Your task to perform on an android device: What's the news this morning? Image 0: 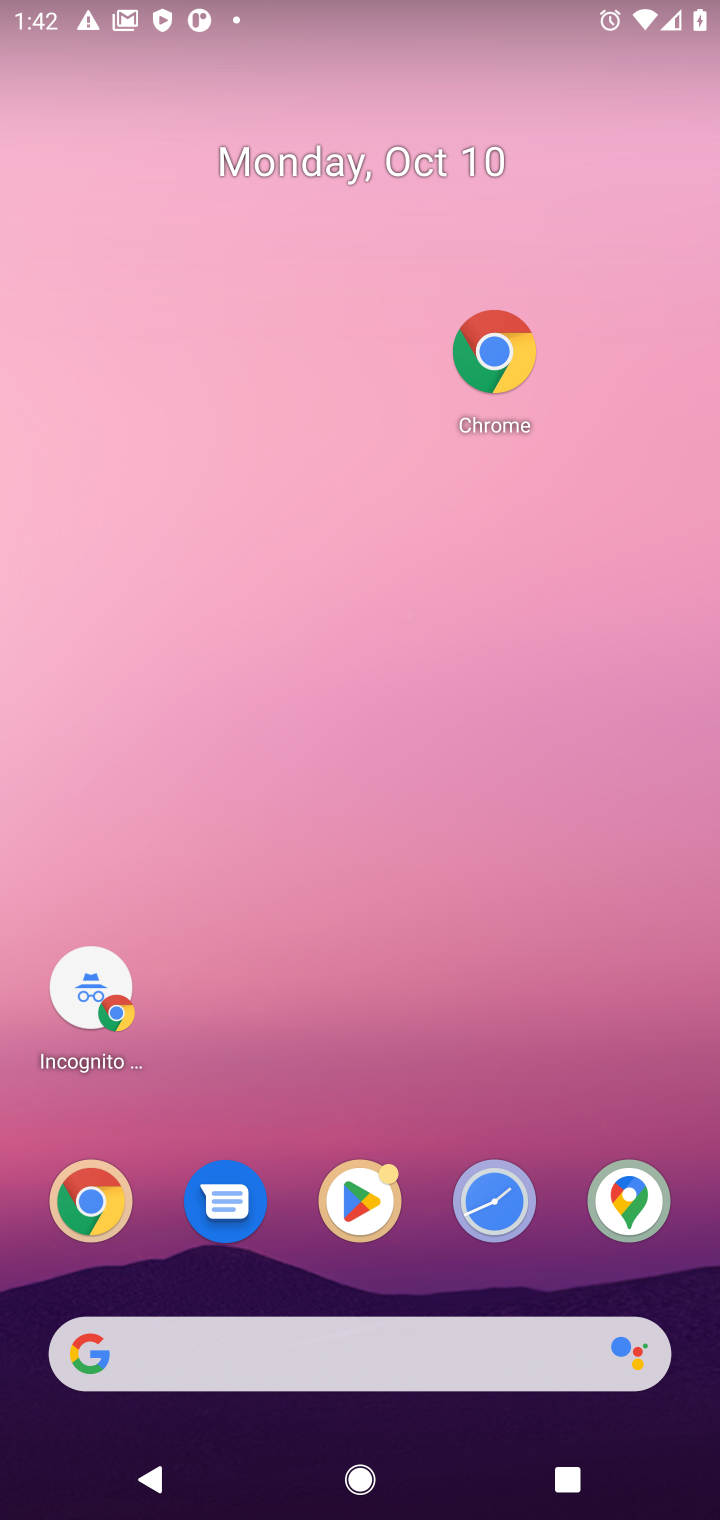
Step 0: click (181, 1351)
Your task to perform on an android device: What's the news this morning? Image 1: 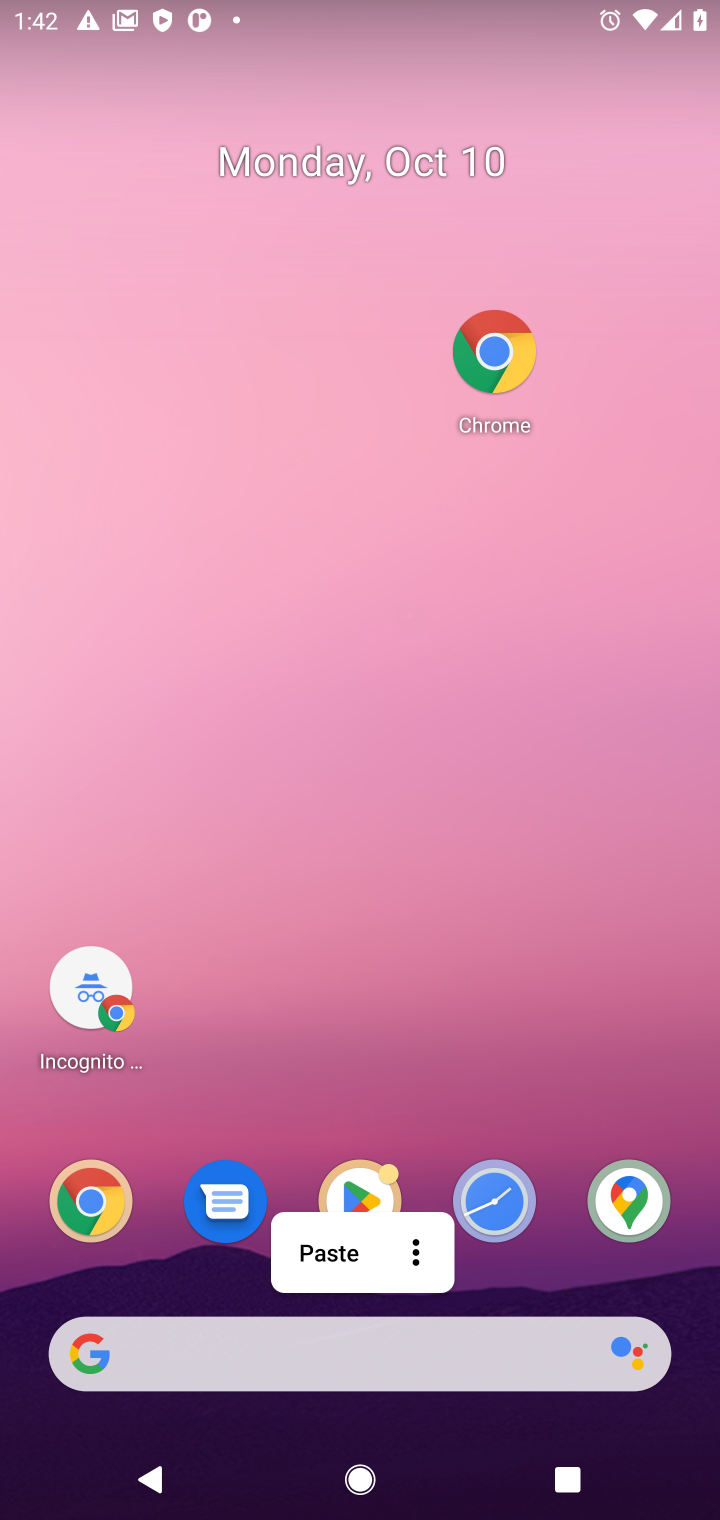
Step 1: click (181, 1351)
Your task to perform on an android device: What's the news this morning? Image 2: 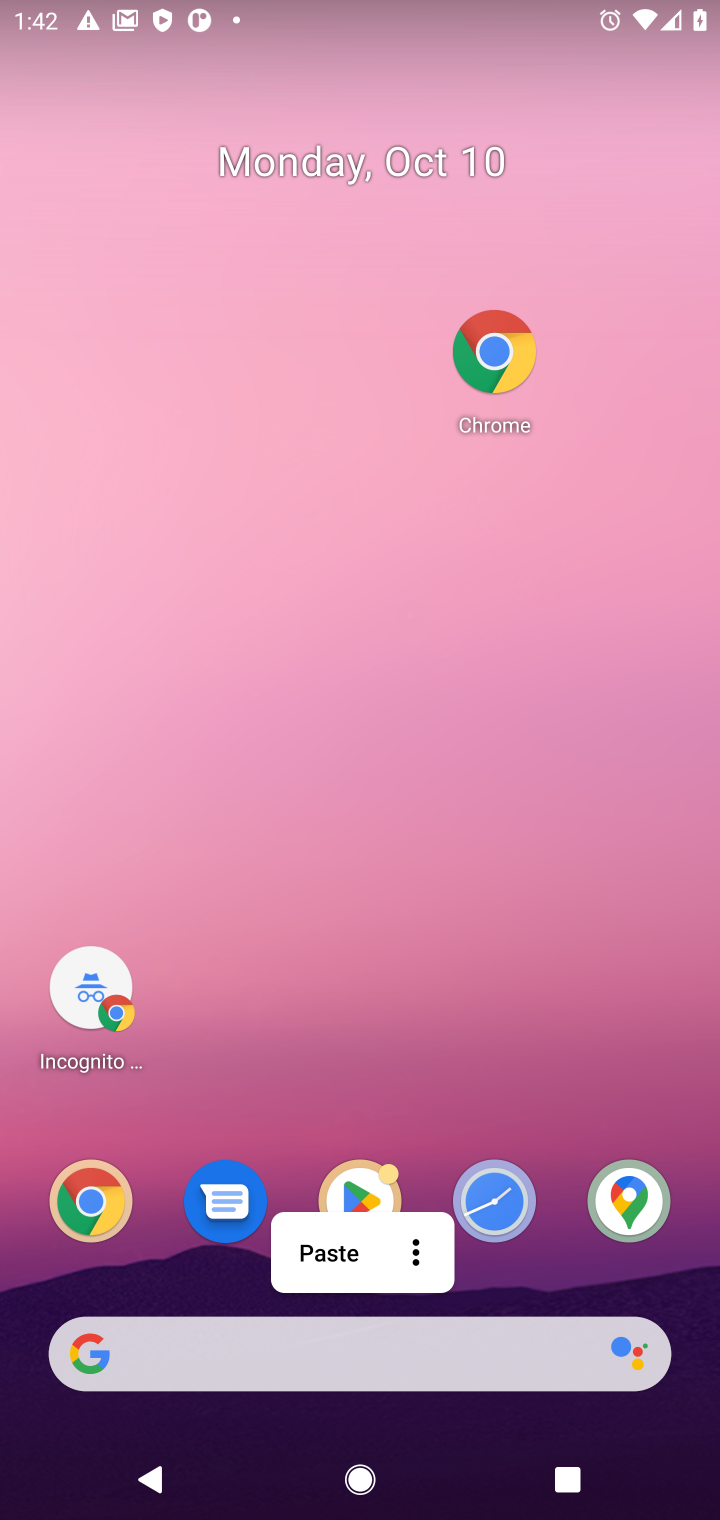
Step 2: click (272, 1357)
Your task to perform on an android device: What's the news this morning? Image 3: 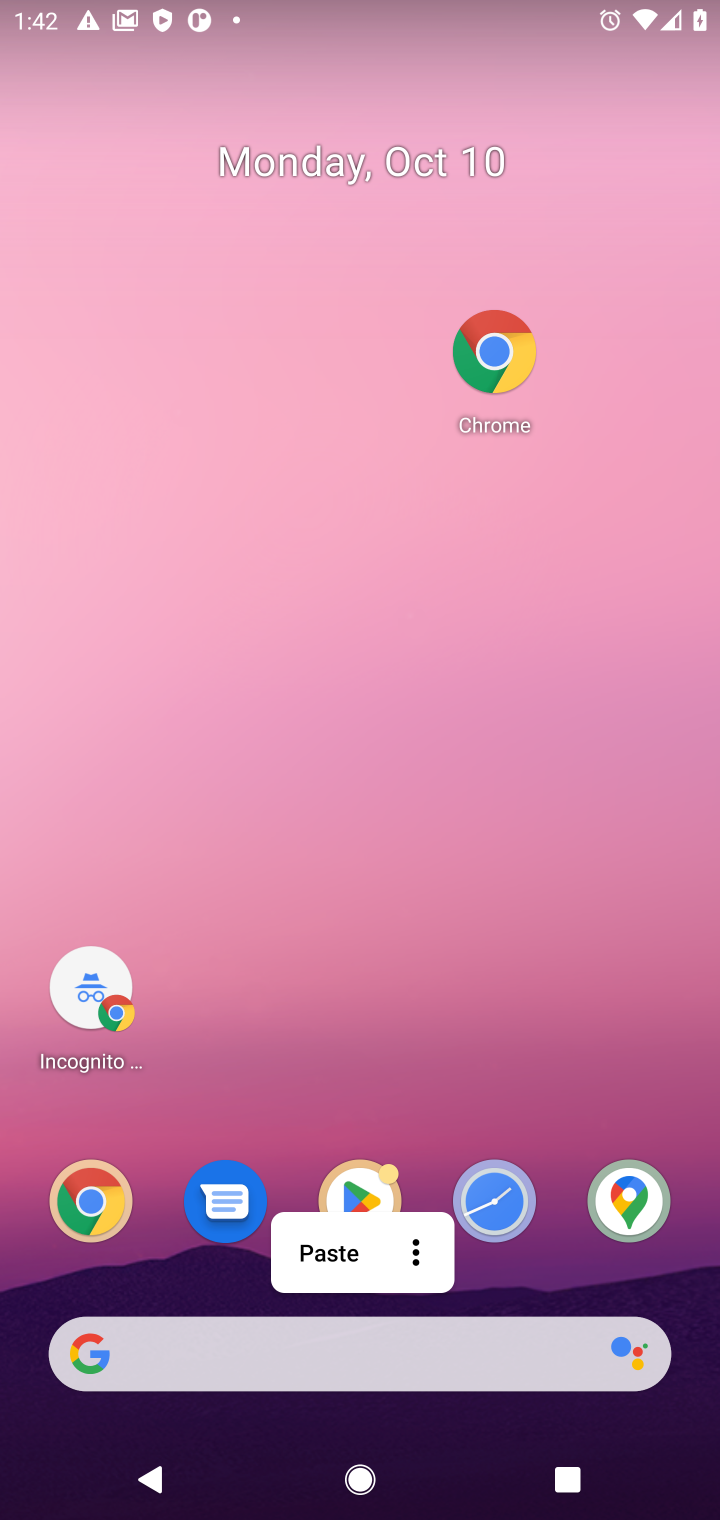
Step 3: drag from (429, 1132) to (470, 92)
Your task to perform on an android device: What's the news this morning? Image 4: 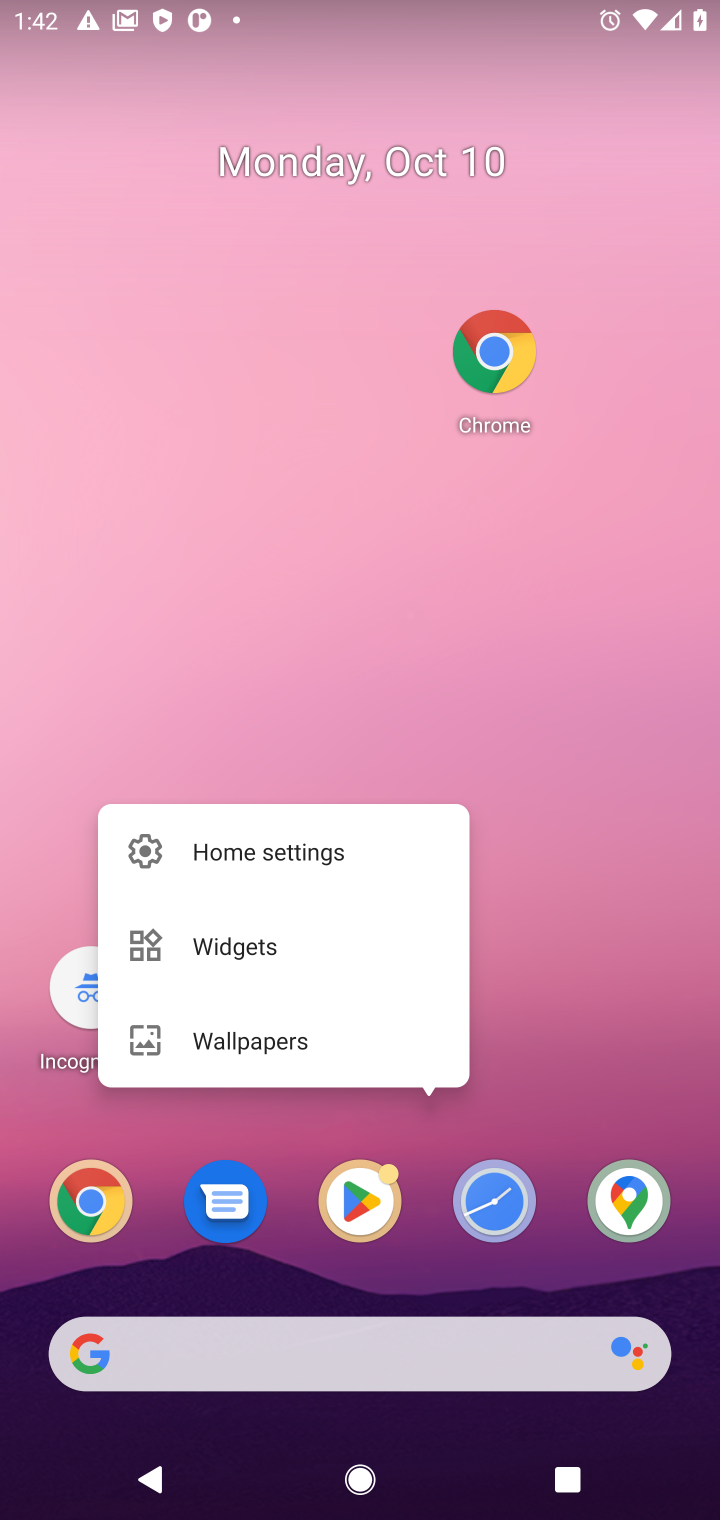
Step 4: drag from (571, 1078) to (667, 1)
Your task to perform on an android device: What's the news this morning? Image 5: 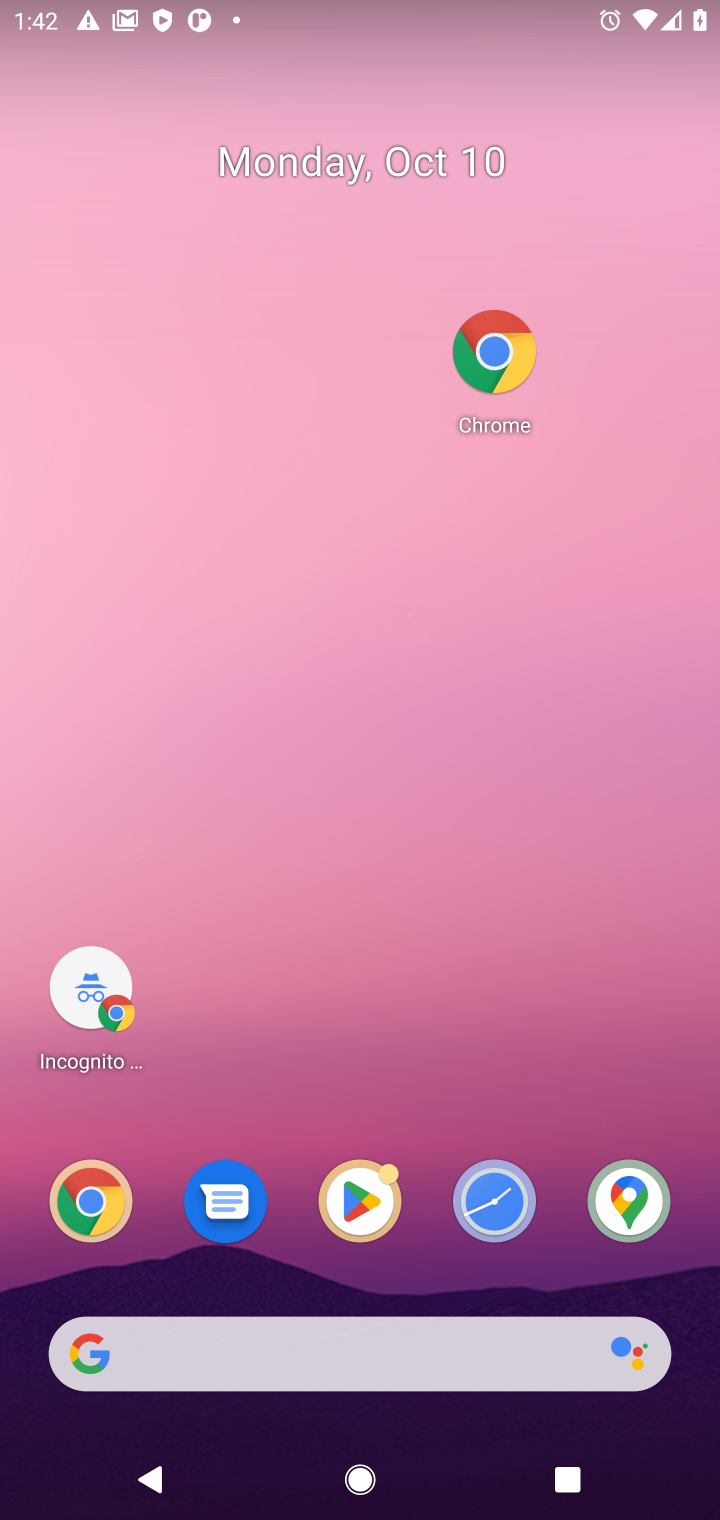
Step 5: drag from (560, 1120) to (560, 127)
Your task to perform on an android device: What's the news this morning? Image 6: 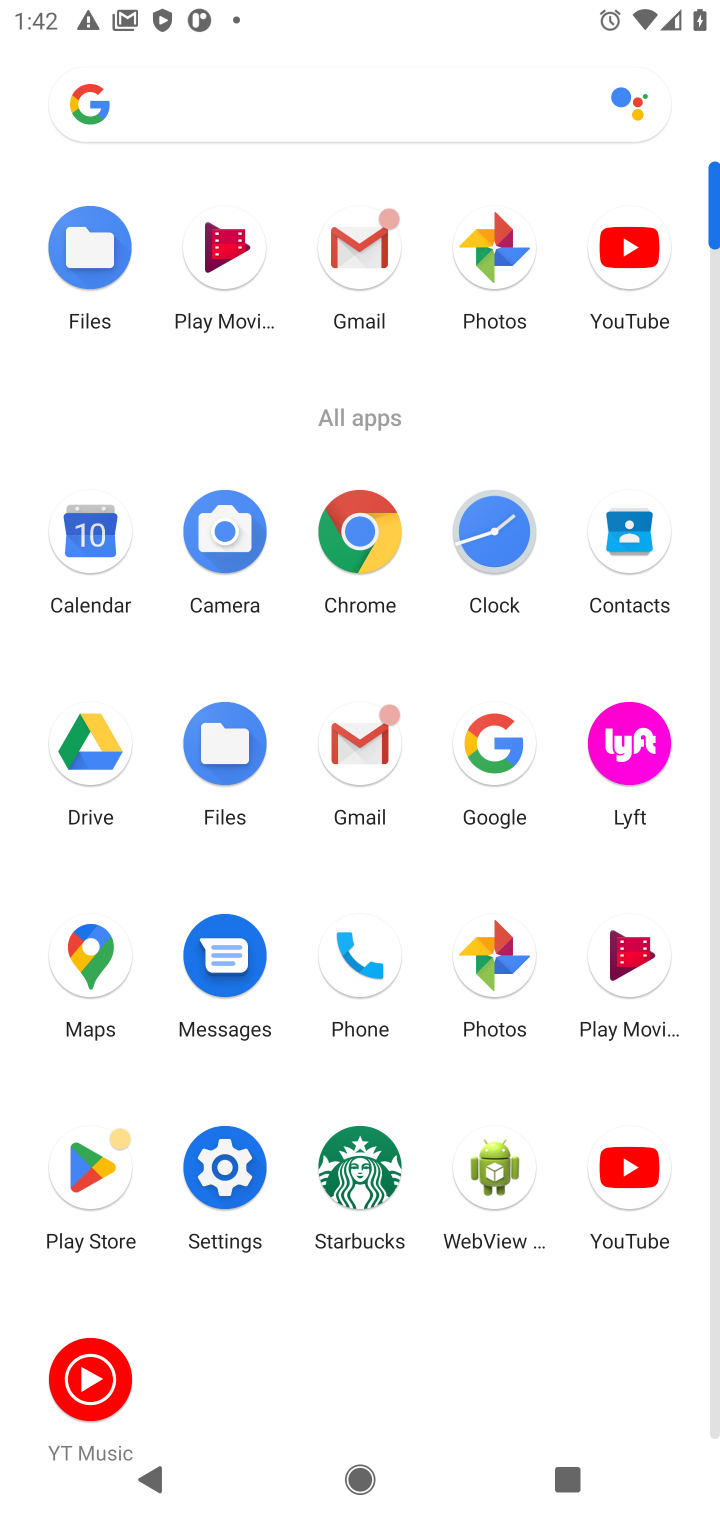
Step 6: click (489, 754)
Your task to perform on an android device: What's the news this morning? Image 7: 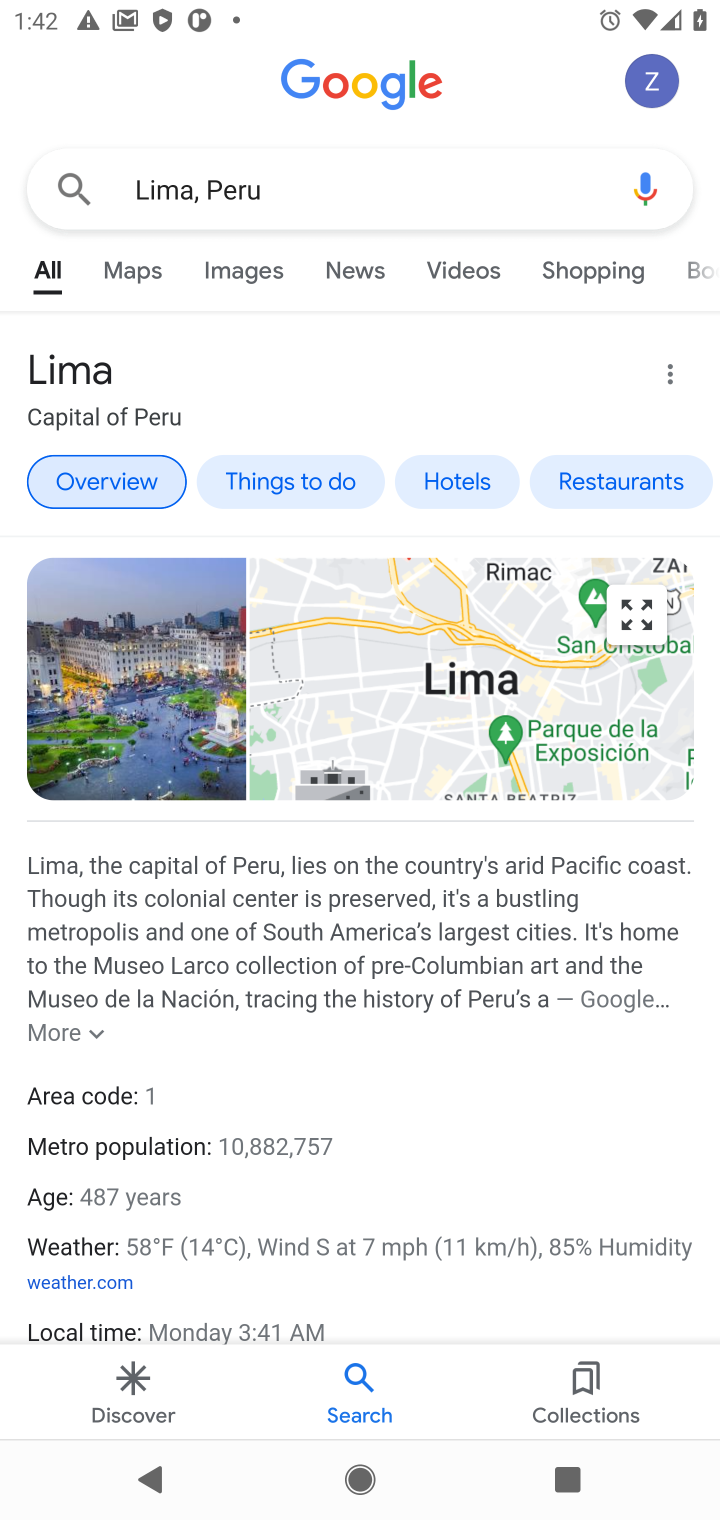
Step 7: click (319, 193)
Your task to perform on an android device: What's the news this morning? Image 8: 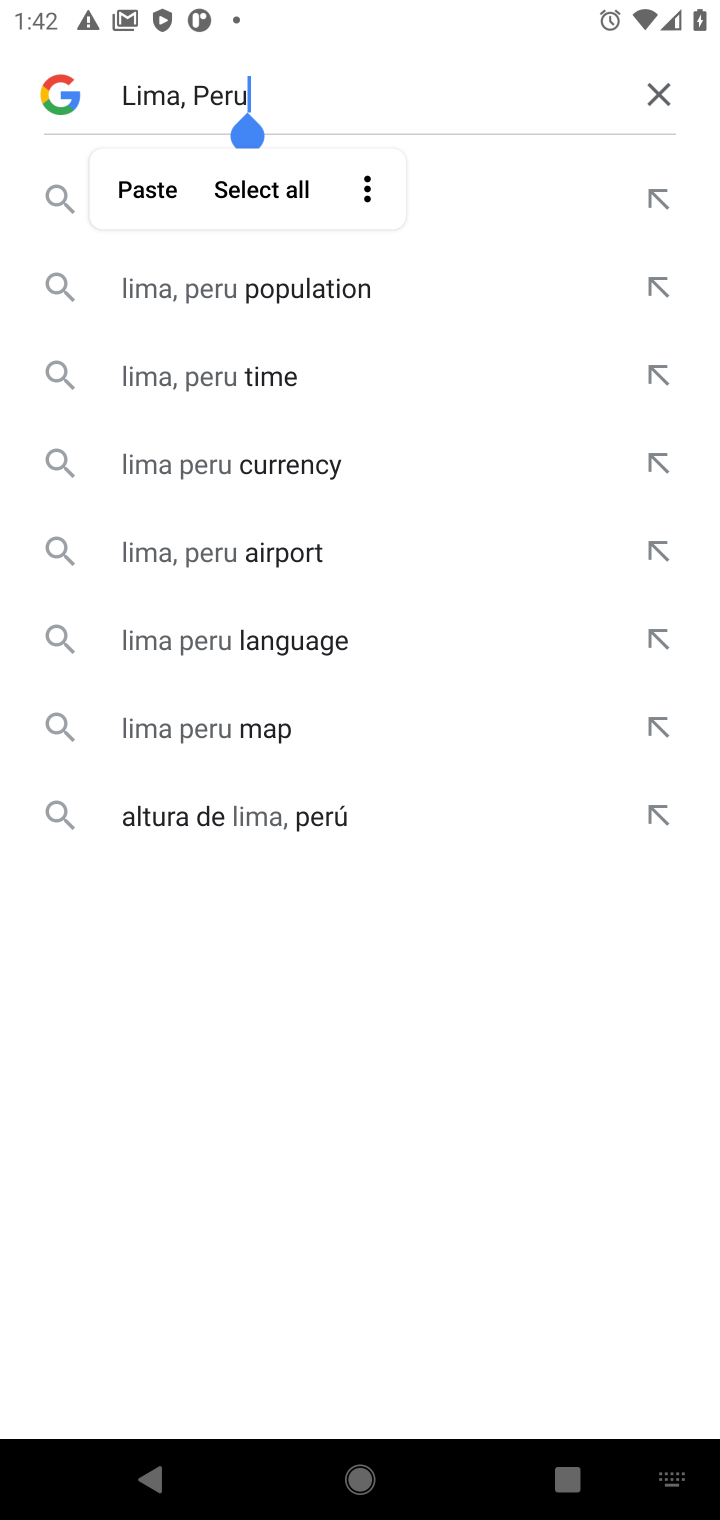
Step 8: click (663, 105)
Your task to perform on an android device: What's the news this morning? Image 9: 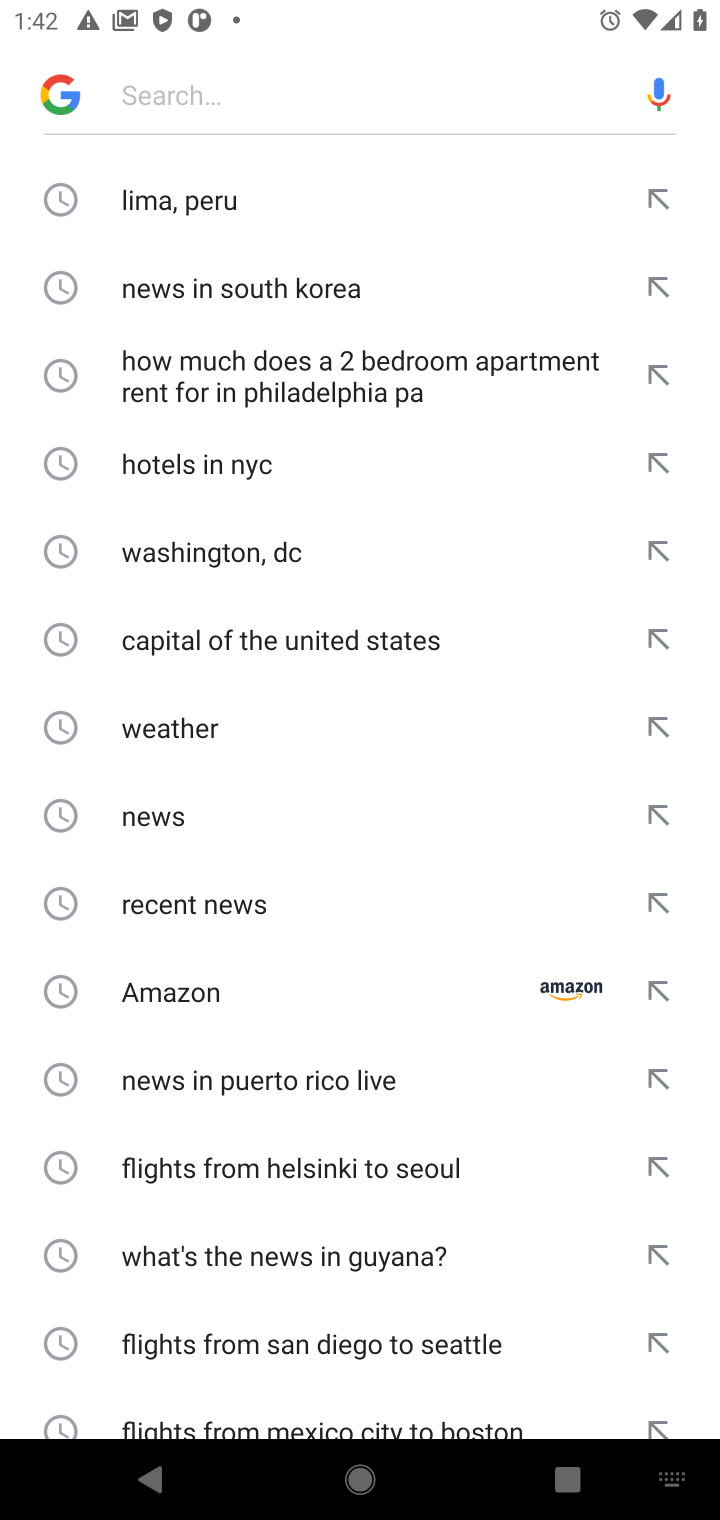
Step 9: type "news this morning "
Your task to perform on an android device: What's the news this morning? Image 10: 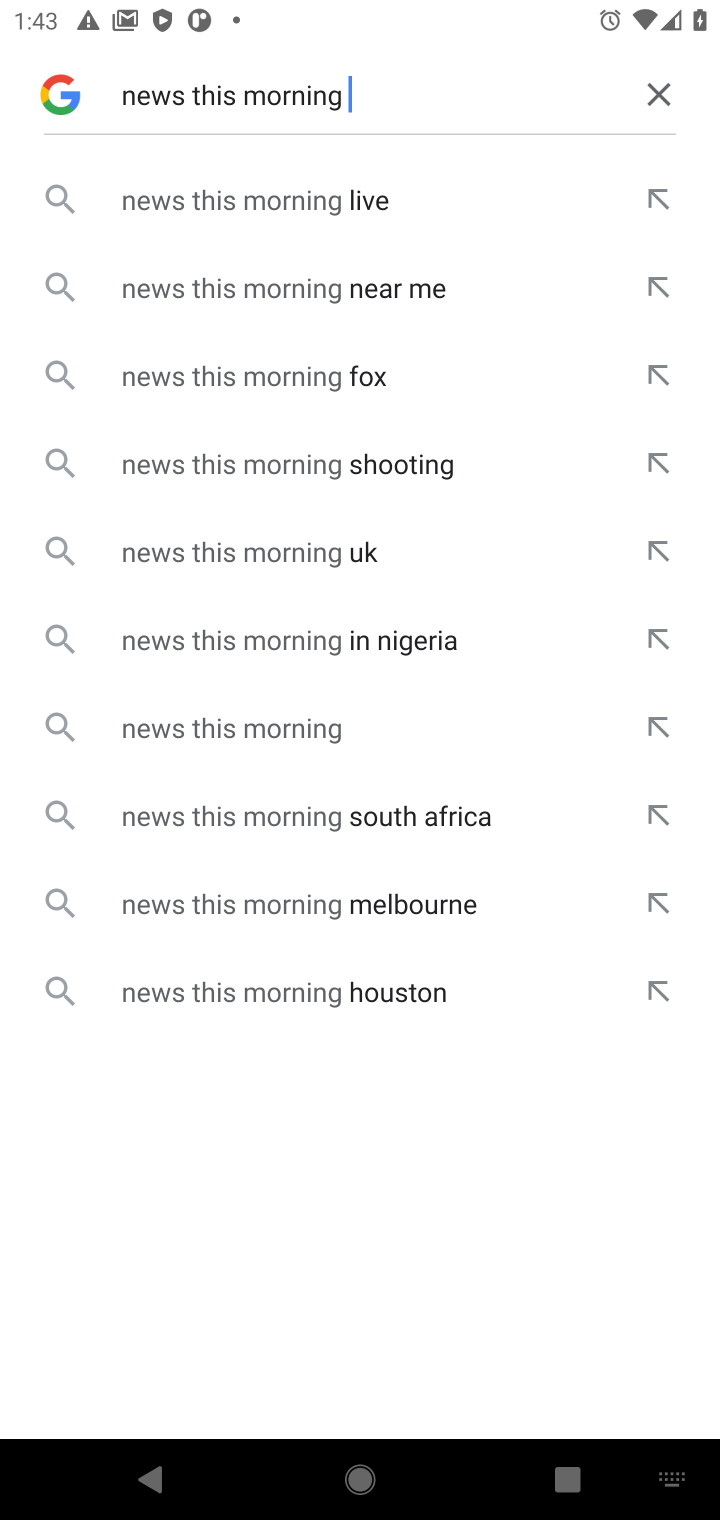
Step 10: click (236, 730)
Your task to perform on an android device: What's the news this morning? Image 11: 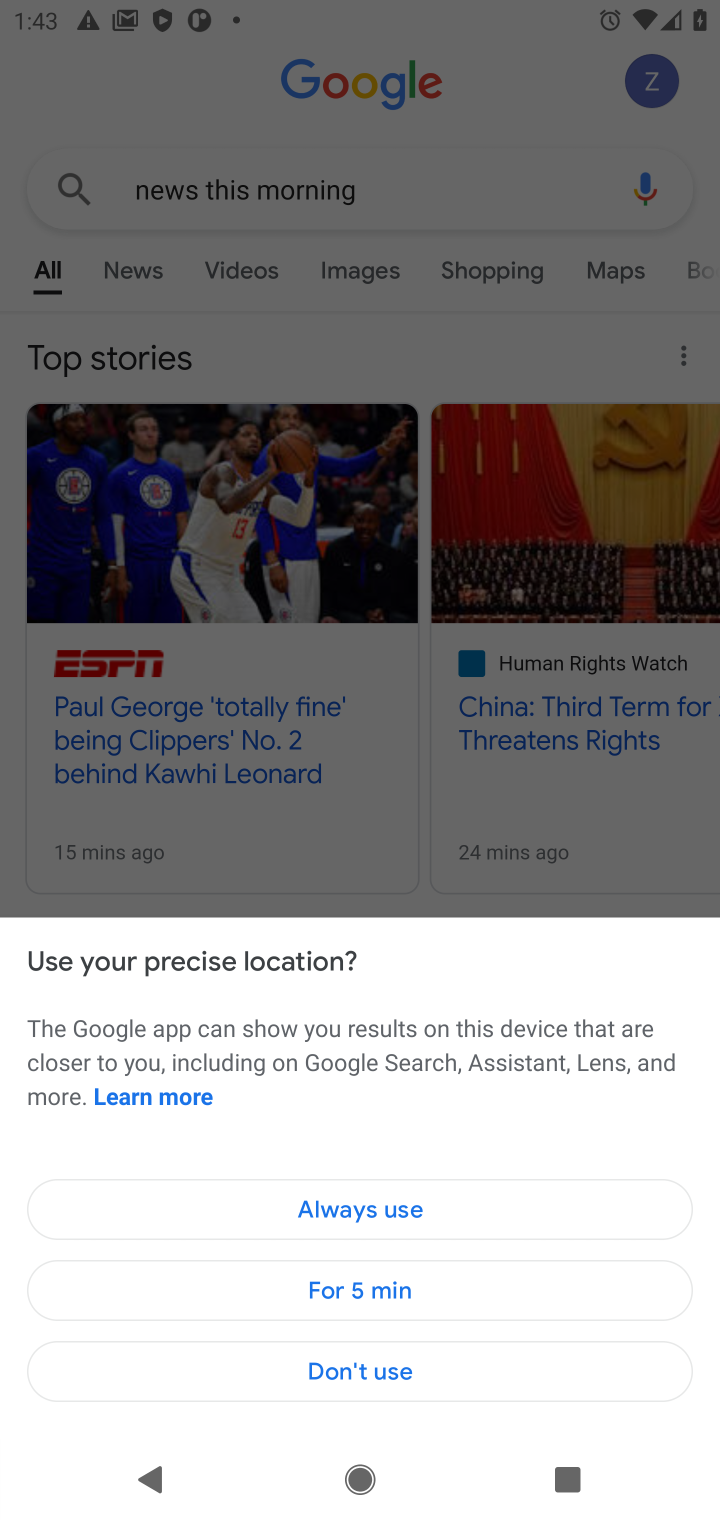
Step 11: click (377, 210)
Your task to perform on an android device: What's the news this morning? Image 12: 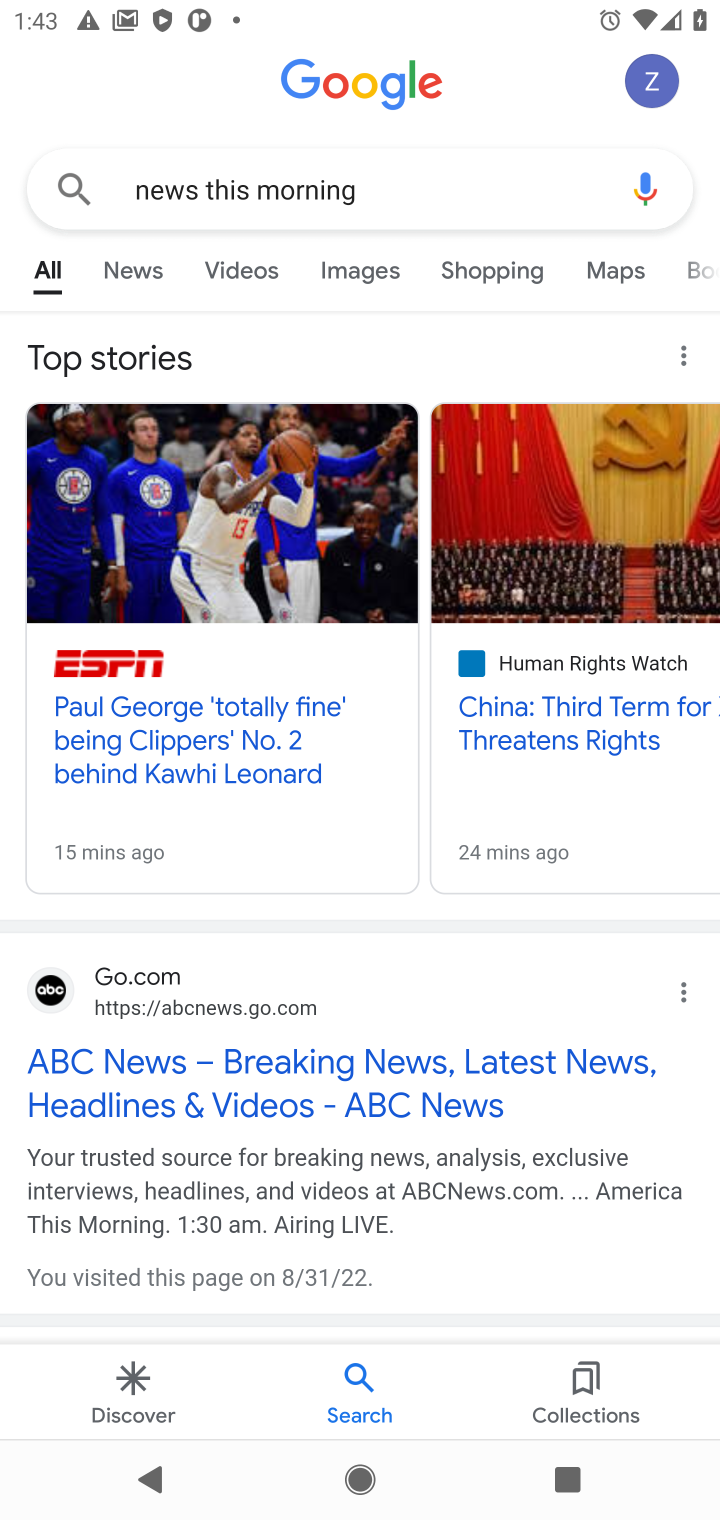
Step 12: drag from (290, 980) to (294, 475)
Your task to perform on an android device: What's the news this morning? Image 13: 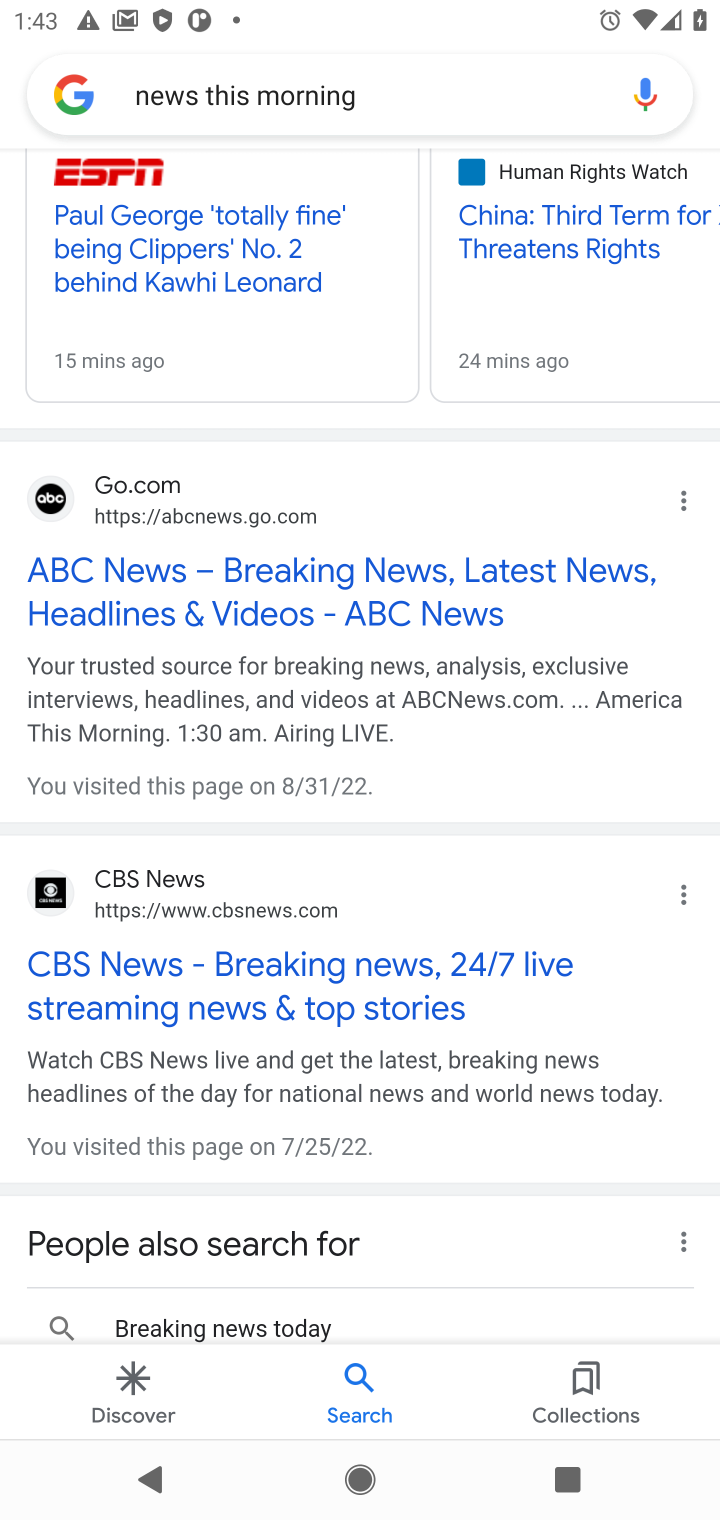
Step 13: click (248, 630)
Your task to perform on an android device: What's the news this morning? Image 14: 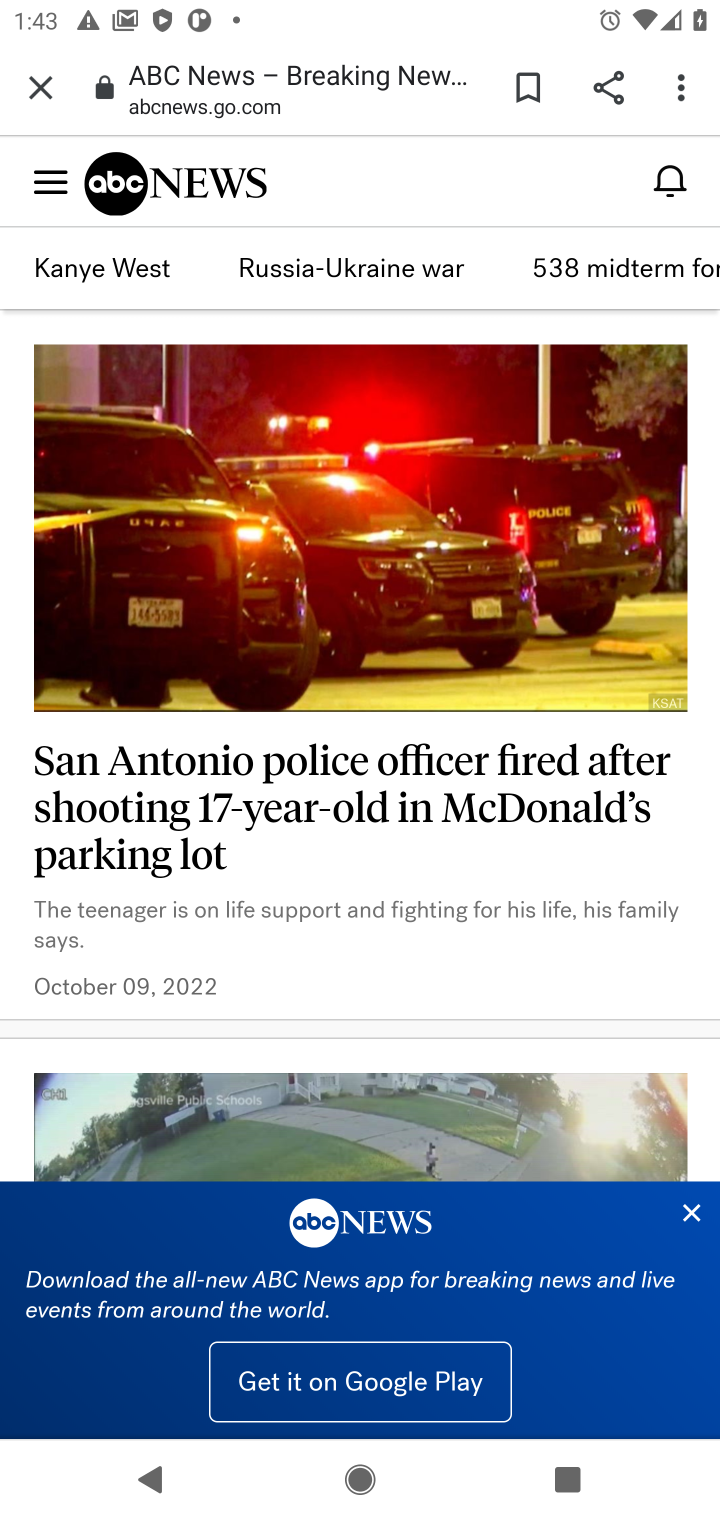
Step 14: task complete